Your task to perform on an android device: Open sound settings Image 0: 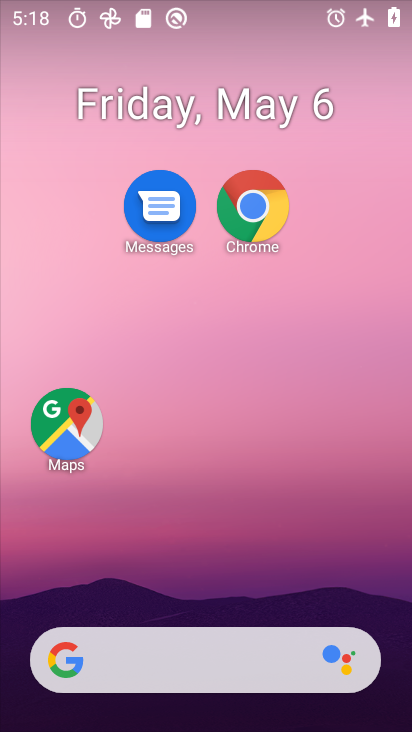
Step 0: drag from (224, 626) to (217, 217)
Your task to perform on an android device: Open sound settings Image 1: 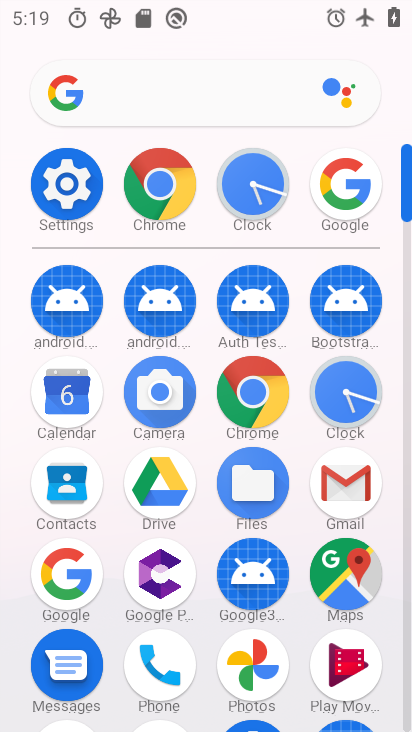
Step 1: click (62, 187)
Your task to perform on an android device: Open sound settings Image 2: 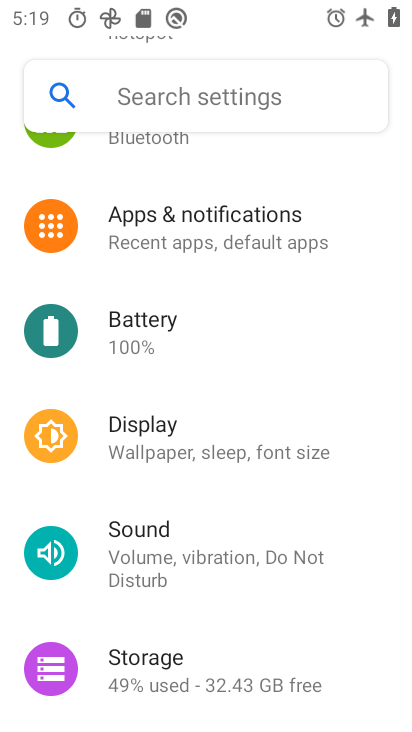
Step 2: click (162, 551)
Your task to perform on an android device: Open sound settings Image 3: 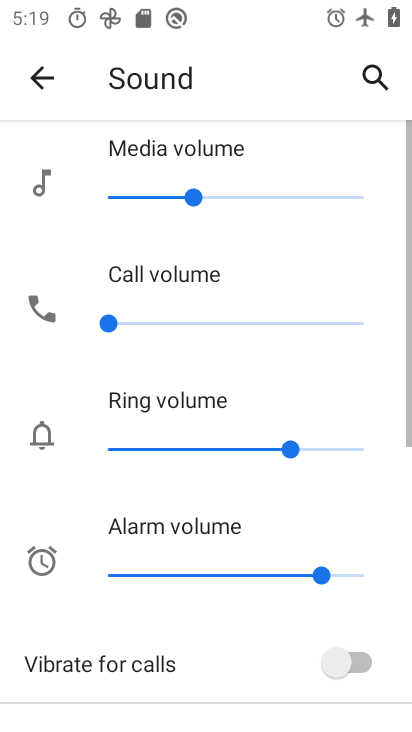
Step 3: task complete